Your task to perform on an android device: Open ESPN.com Image 0: 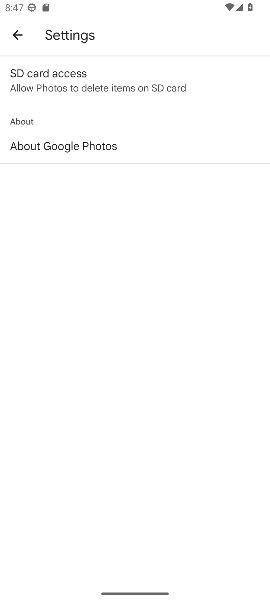
Step 0: press home button
Your task to perform on an android device: Open ESPN.com Image 1: 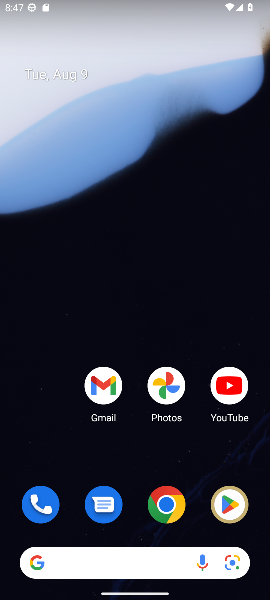
Step 1: click (165, 507)
Your task to perform on an android device: Open ESPN.com Image 2: 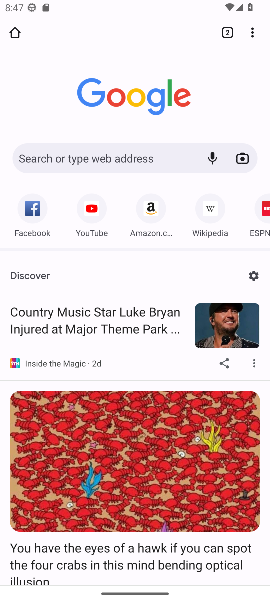
Step 2: click (258, 216)
Your task to perform on an android device: Open ESPN.com Image 3: 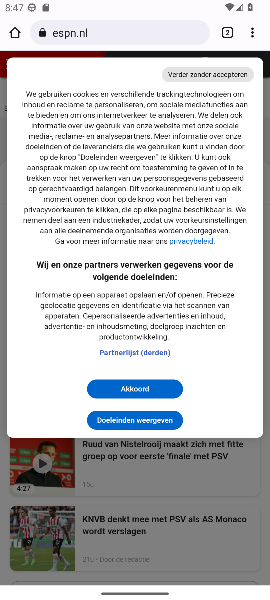
Step 3: click (142, 391)
Your task to perform on an android device: Open ESPN.com Image 4: 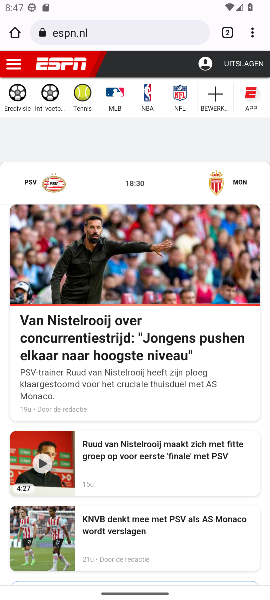
Step 4: task complete